Your task to perform on an android device: set the timer Image 0: 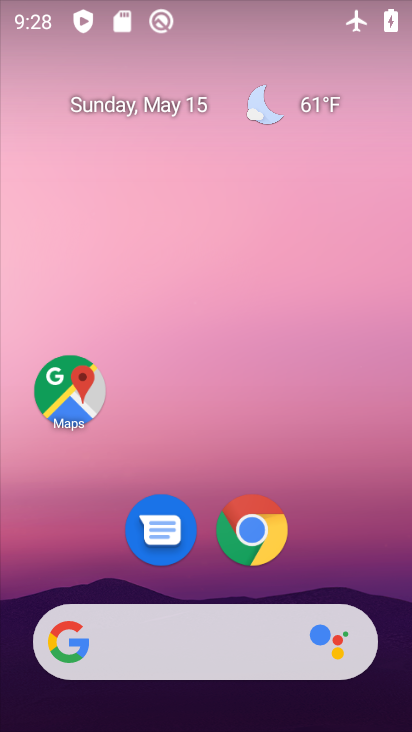
Step 0: drag from (214, 727) to (227, 129)
Your task to perform on an android device: set the timer Image 1: 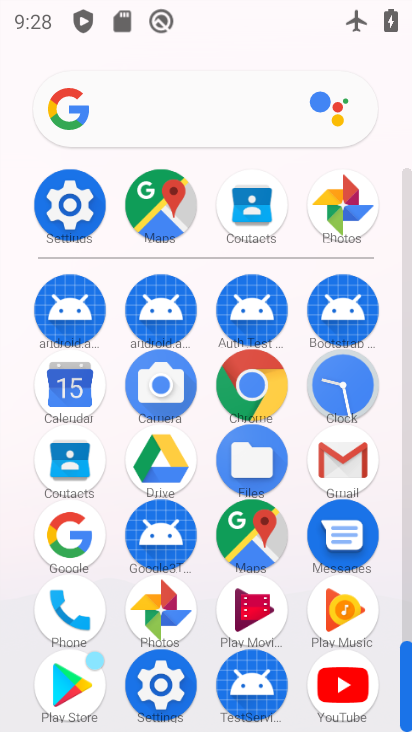
Step 1: drag from (300, 583) to (289, 279)
Your task to perform on an android device: set the timer Image 2: 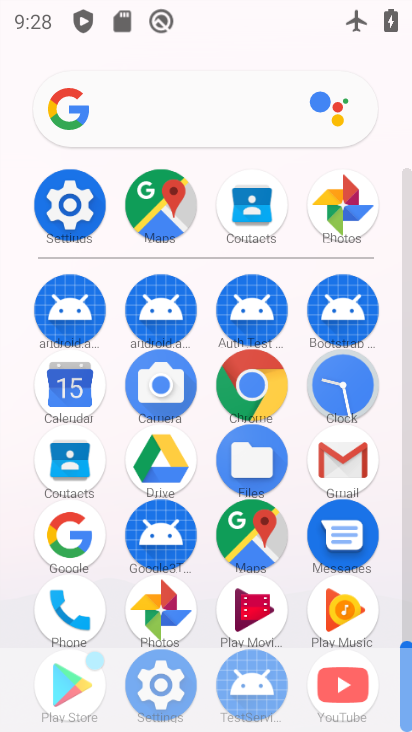
Step 2: click (334, 382)
Your task to perform on an android device: set the timer Image 3: 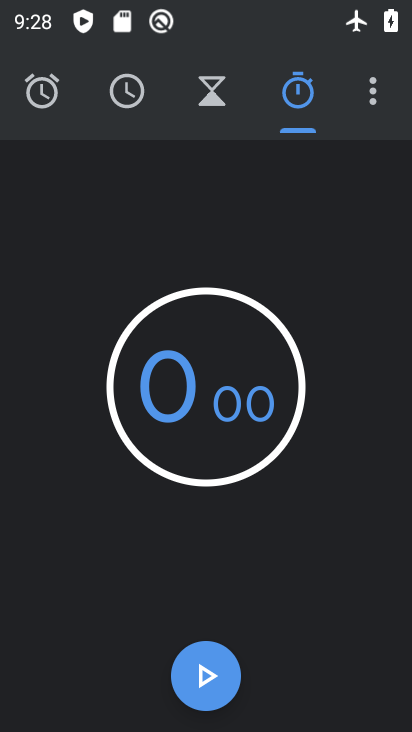
Step 3: click (217, 94)
Your task to perform on an android device: set the timer Image 4: 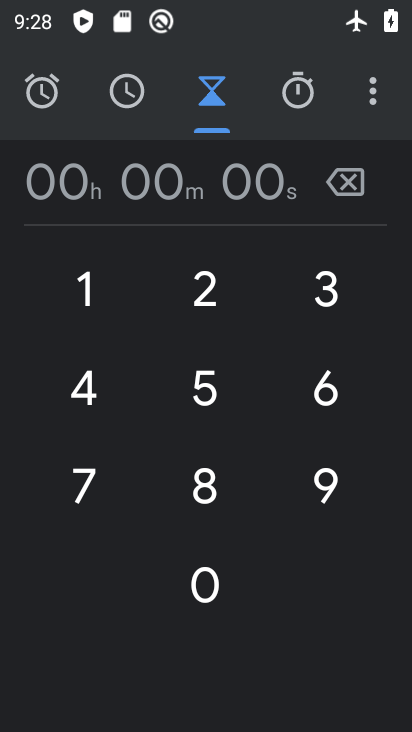
Step 4: click (186, 282)
Your task to perform on an android device: set the timer Image 5: 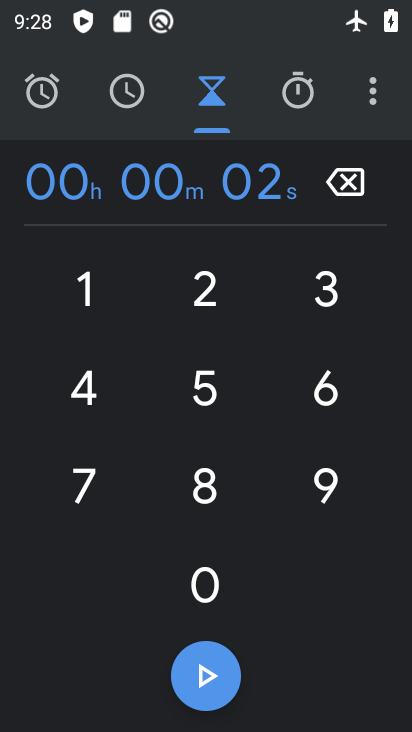
Step 5: click (106, 294)
Your task to perform on an android device: set the timer Image 6: 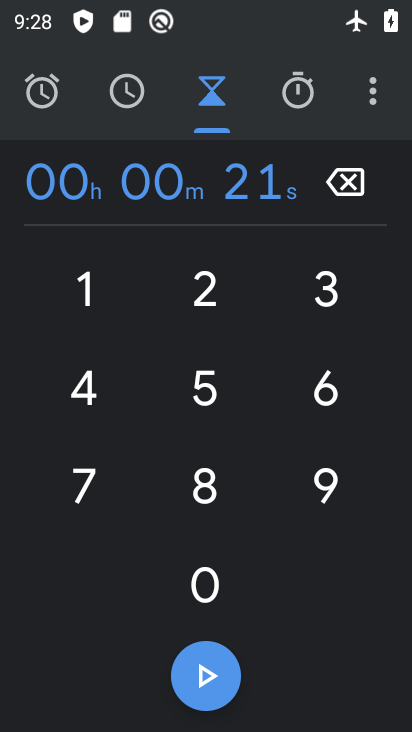
Step 6: click (86, 455)
Your task to perform on an android device: set the timer Image 7: 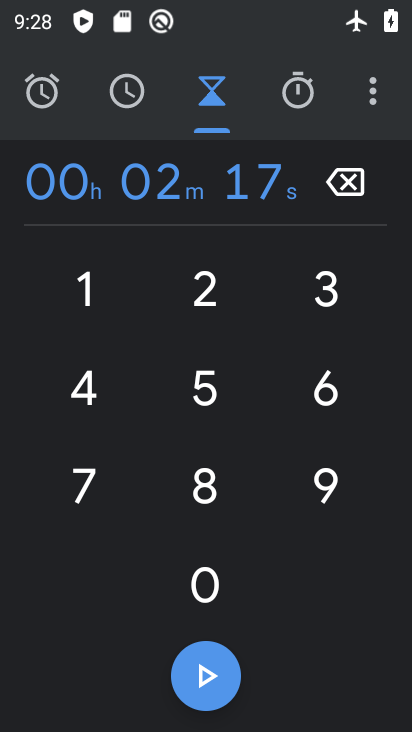
Step 7: click (213, 496)
Your task to perform on an android device: set the timer Image 8: 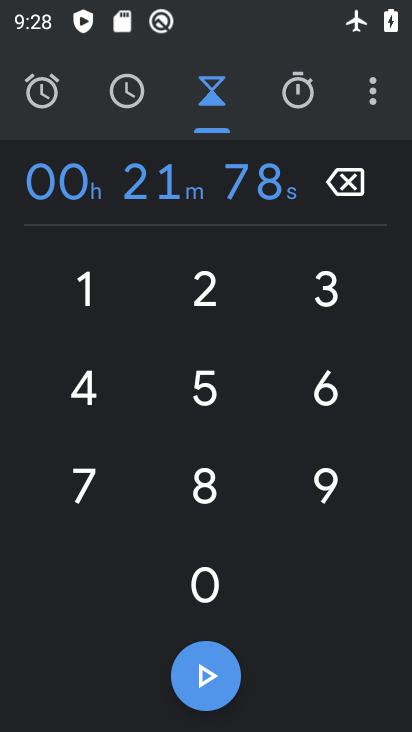
Step 8: click (212, 674)
Your task to perform on an android device: set the timer Image 9: 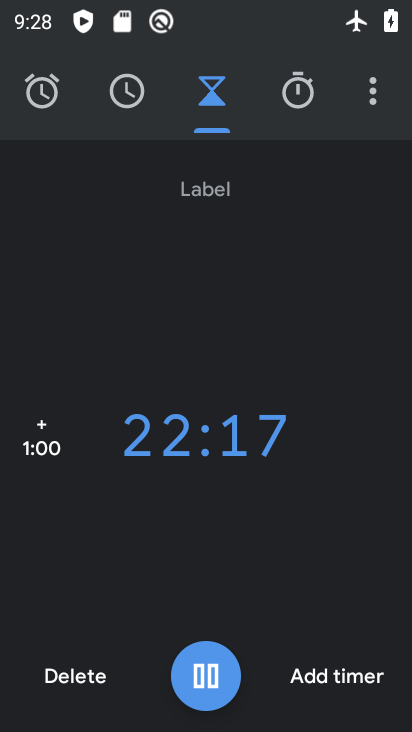
Step 9: task complete